Your task to perform on an android device: Open the Play Movies app and select the watchlist tab. Image 0: 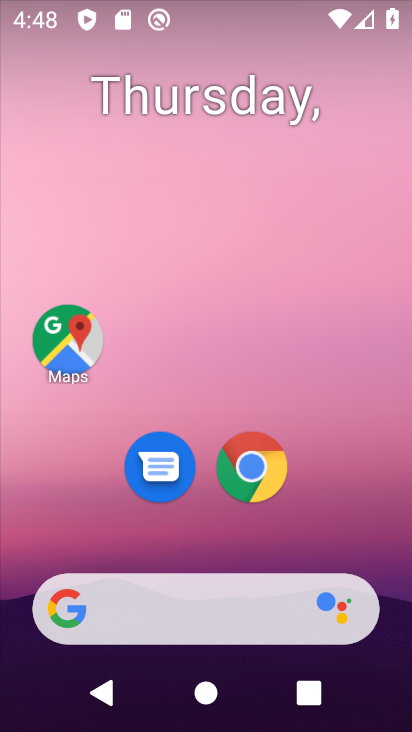
Step 0: drag from (367, 518) to (253, 134)
Your task to perform on an android device: Open the Play Movies app and select the watchlist tab. Image 1: 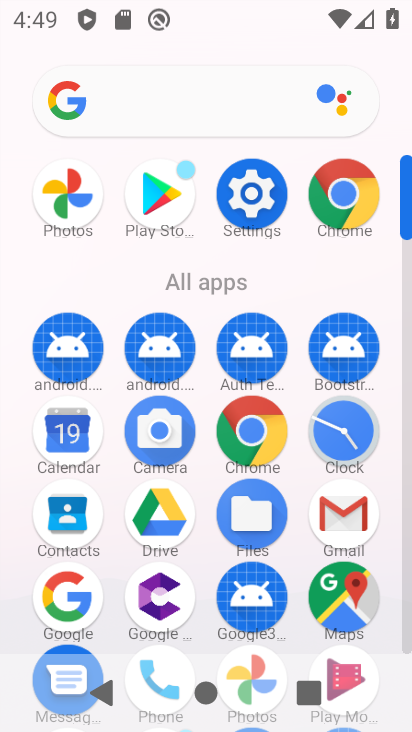
Step 1: click (345, 646)
Your task to perform on an android device: Open the Play Movies app and select the watchlist tab. Image 2: 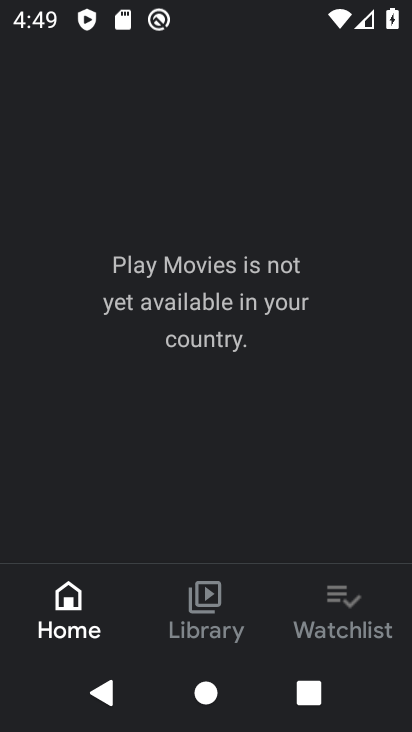
Step 2: click (337, 600)
Your task to perform on an android device: Open the Play Movies app and select the watchlist tab. Image 3: 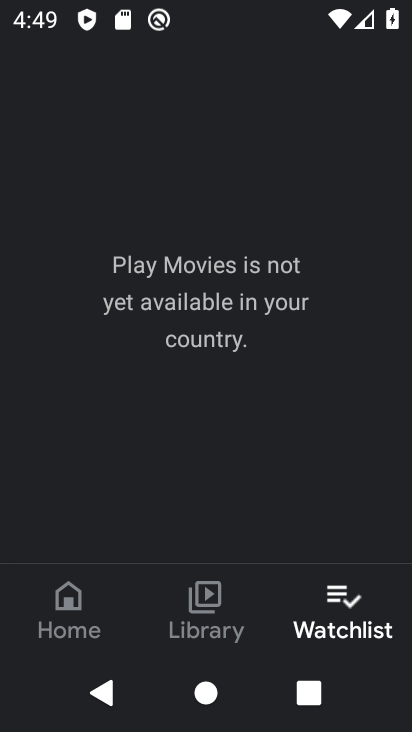
Step 3: task complete